Your task to perform on an android device: remove spam from my inbox in the gmail app Image 0: 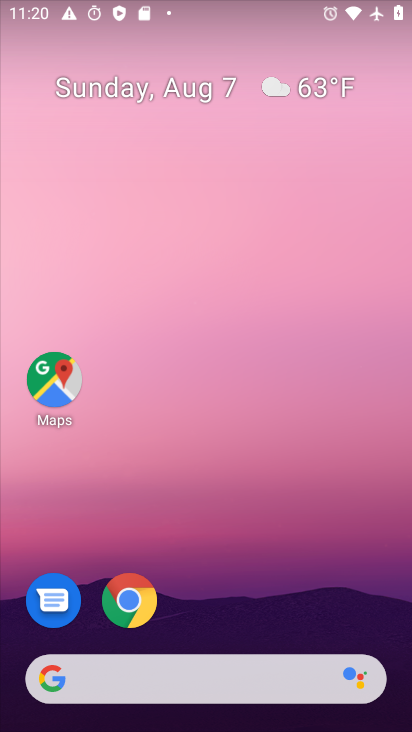
Step 0: drag from (227, 671) to (224, 110)
Your task to perform on an android device: remove spam from my inbox in the gmail app Image 1: 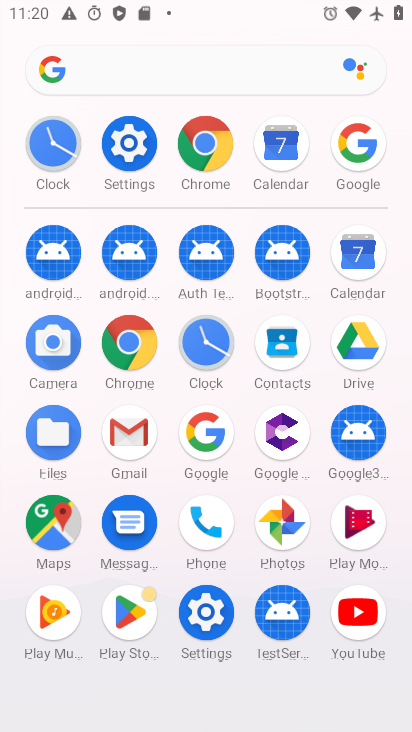
Step 1: click (139, 438)
Your task to perform on an android device: remove spam from my inbox in the gmail app Image 2: 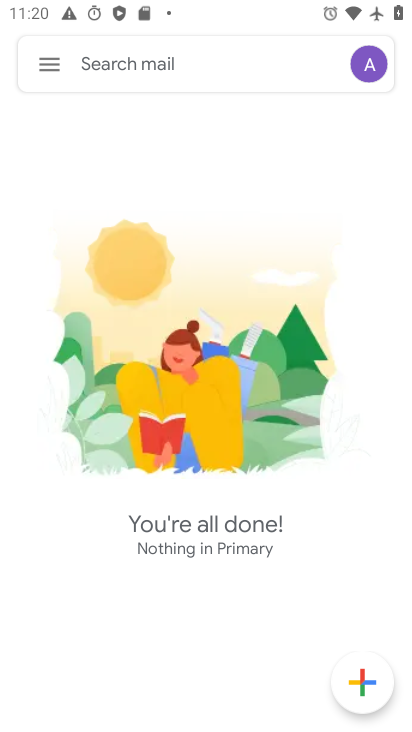
Step 2: click (43, 70)
Your task to perform on an android device: remove spam from my inbox in the gmail app Image 3: 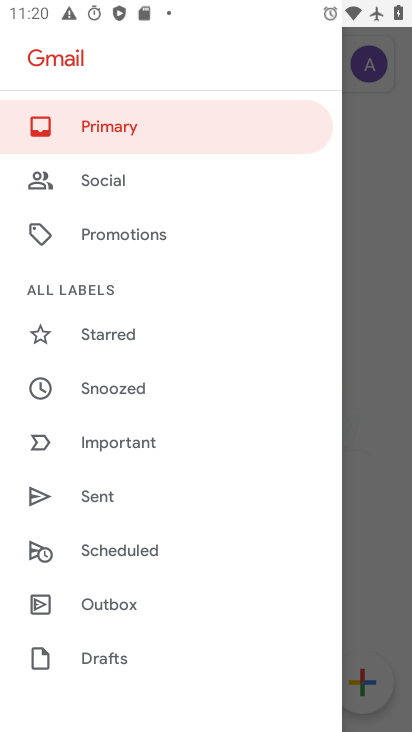
Step 3: drag from (175, 494) to (181, 144)
Your task to perform on an android device: remove spam from my inbox in the gmail app Image 4: 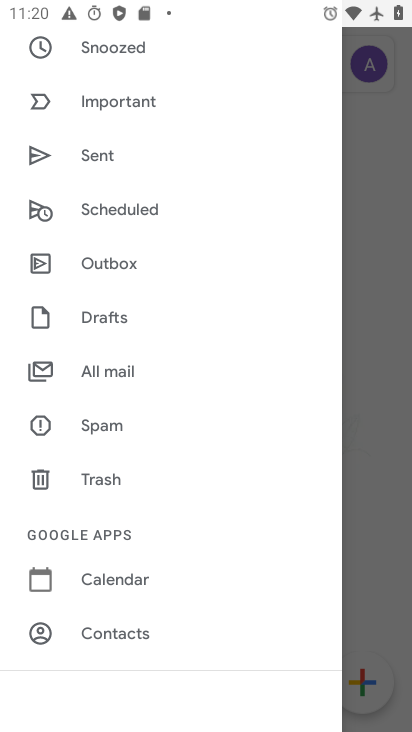
Step 4: drag from (138, 559) to (196, 180)
Your task to perform on an android device: remove spam from my inbox in the gmail app Image 5: 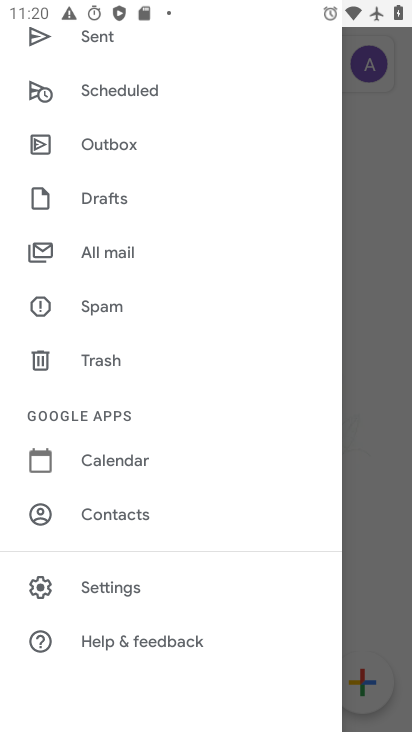
Step 5: click (98, 320)
Your task to perform on an android device: remove spam from my inbox in the gmail app Image 6: 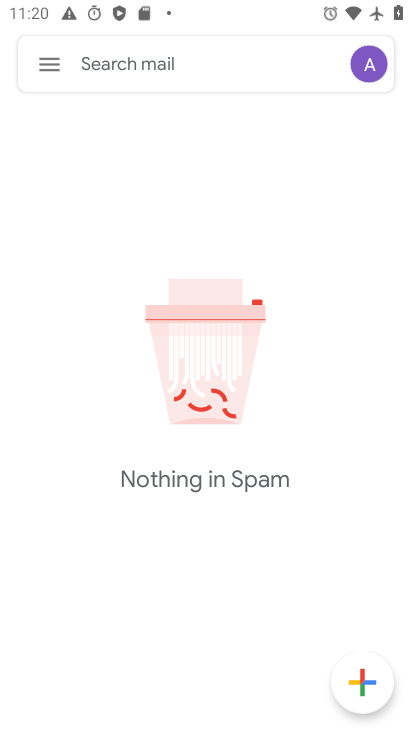
Step 6: click (51, 75)
Your task to perform on an android device: remove spam from my inbox in the gmail app Image 7: 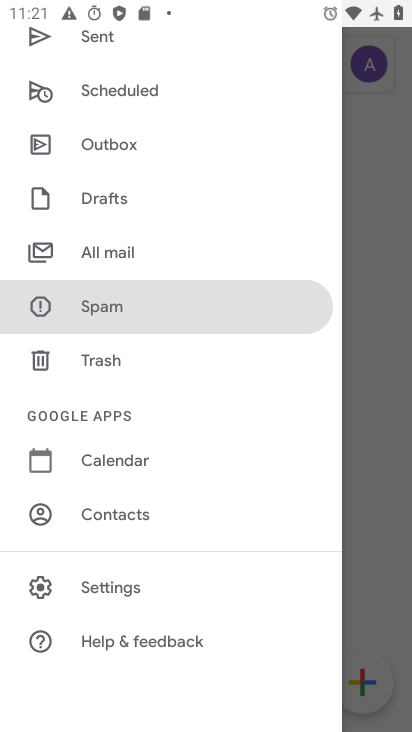
Step 7: task complete